Your task to perform on an android device: Open Google Chrome Image 0: 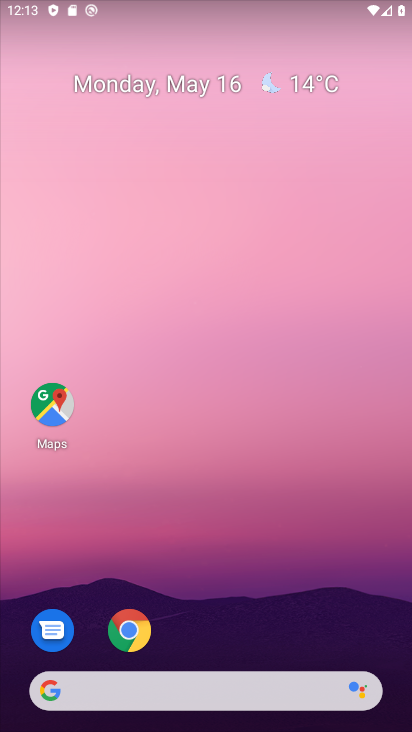
Step 0: click (131, 636)
Your task to perform on an android device: Open Google Chrome Image 1: 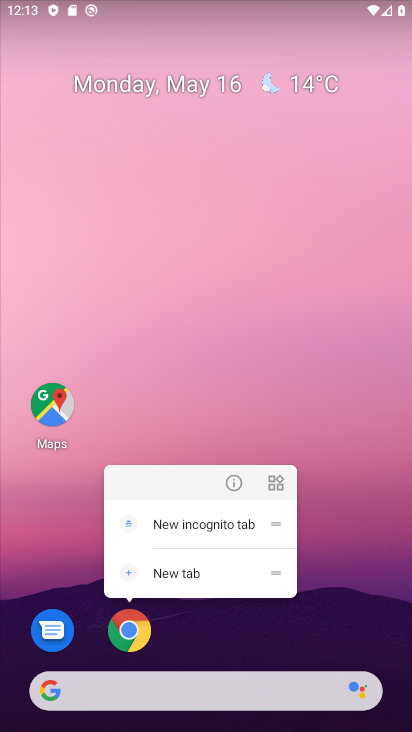
Step 1: click (125, 633)
Your task to perform on an android device: Open Google Chrome Image 2: 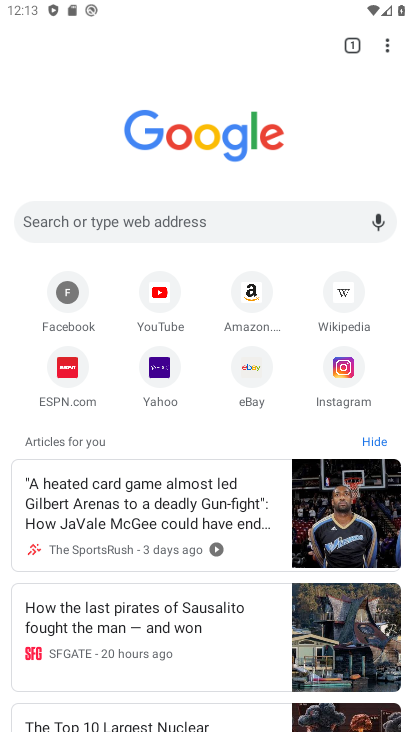
Step 2: task complete